Your task to perform on an android device: turn off airplane mode Image 0: 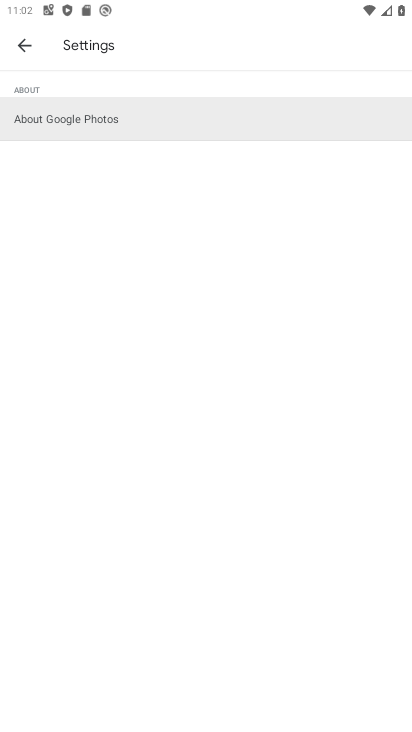
Step 0: press home button
Your task to perform on an android device: turn off airplane mode Image 1: 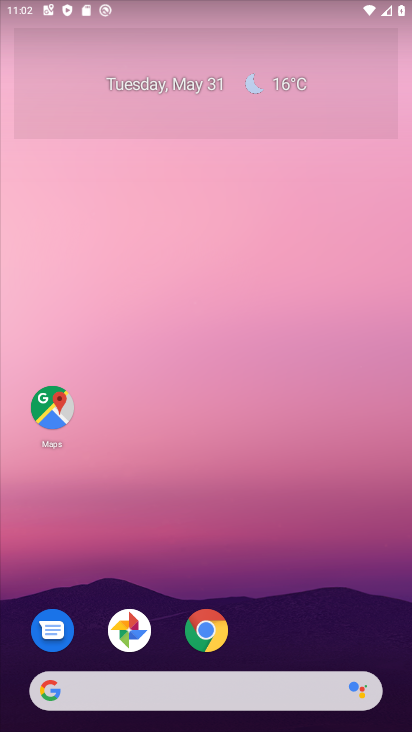
Step 1: drag from (304, 624) to (277, 214)
Your task to perform on an android device: turn off airplane mode Image 2: 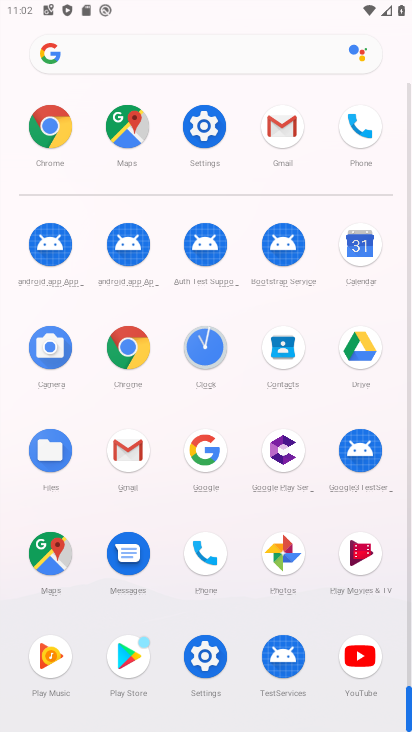
Step 2: click (196, 117)
Your task to perform on an android device: turn off airplane mode Image 3: 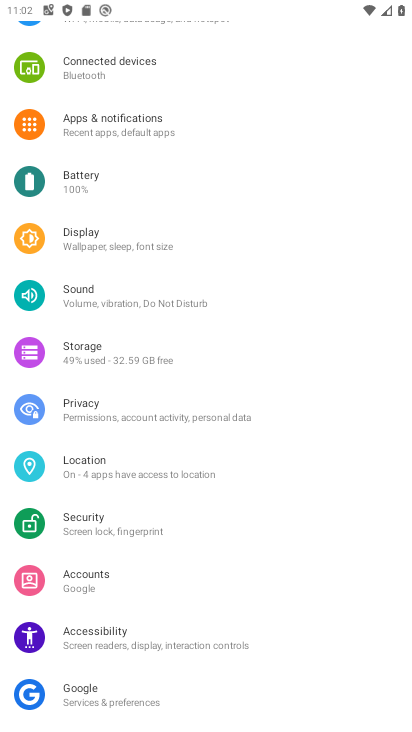
Step 3: drag from (144, 85) to (211, 497)
Your task to perform on an android device: turn off airplane mode Image 4: 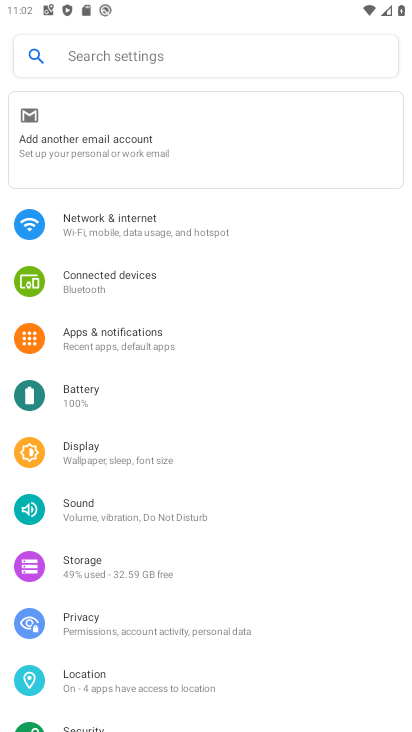
Step 4: click (157, 225)
Your task to perform on an android device: turn off airplane mode Image 5: 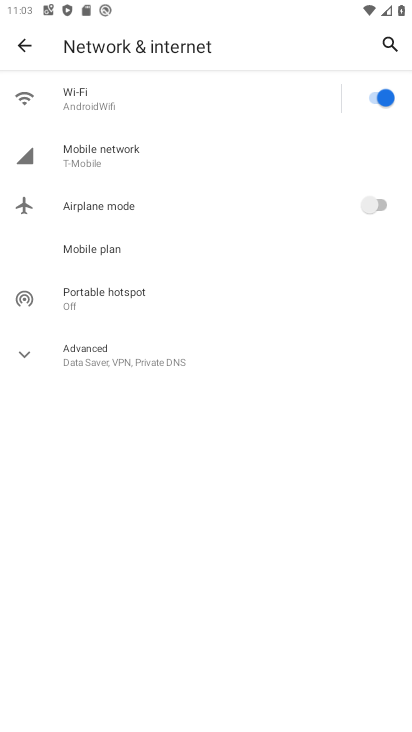
Step 5: task complete